Your task to perform on an android device: read, delete, or share a saved page in the chrome app Image 0: 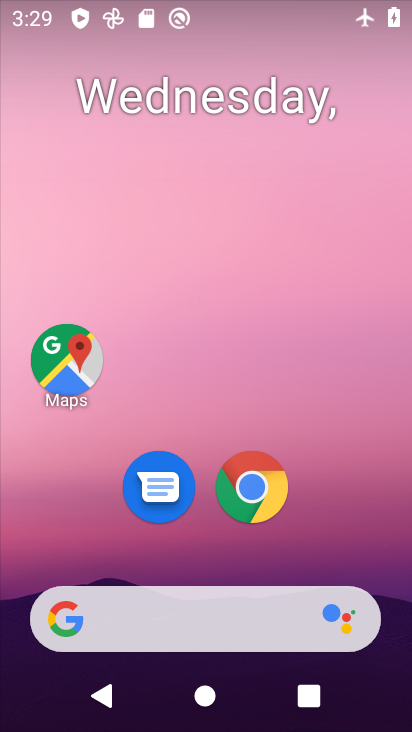
Step 0: drag from (372, 531) to (376, 186)
Your task to perform on an android device: read, delete, or share a saved page in the chrome app Image 1: 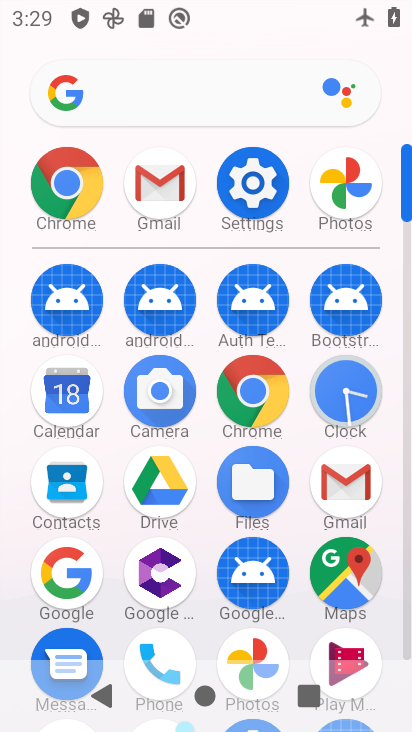
Step 1: click (263, 408)
Your task to perform on an android device: read, delete, or share a saved page in the chrome app Image 2: 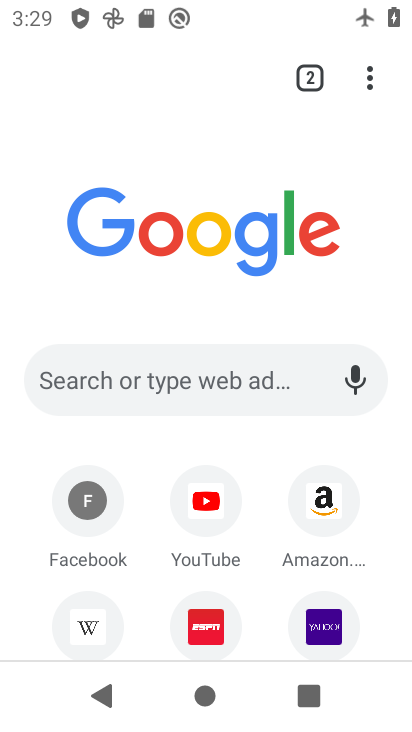
Step 2: click (367, 81)
Your task to perform on an android device: read, delete, or share a saved page in the chrome app Image 3: 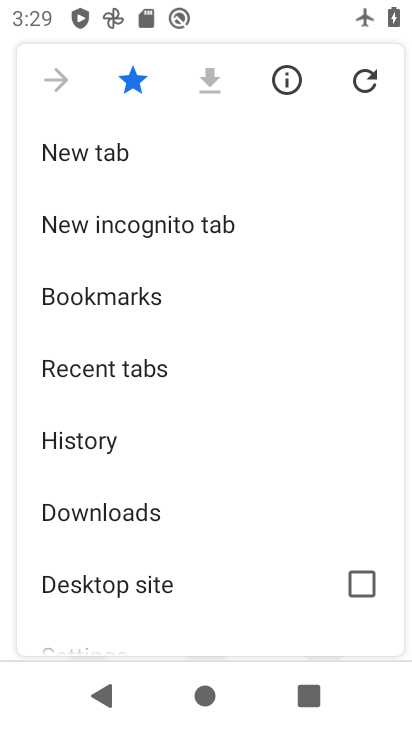
Step 3: drag from (291, 533) to (316, 426)
Your task to perform on an android device: read, delete, or share a saved page in the chrome app Image 4: 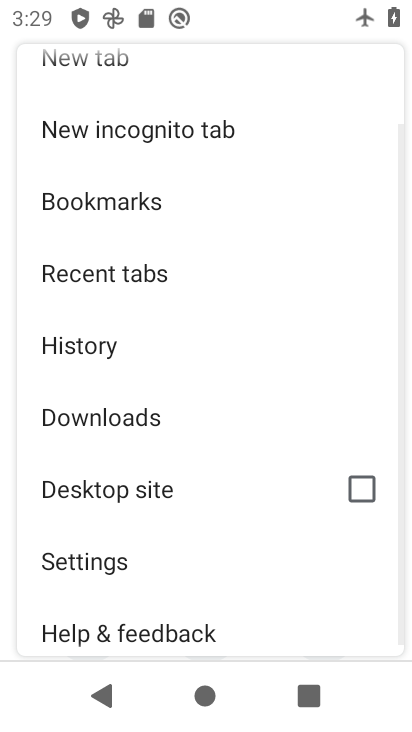
Step 4: drag from (288, 594) to (286, 416)
Your task to perform on an android device: read, delete, or share a saved page in the chrome app Image 5: 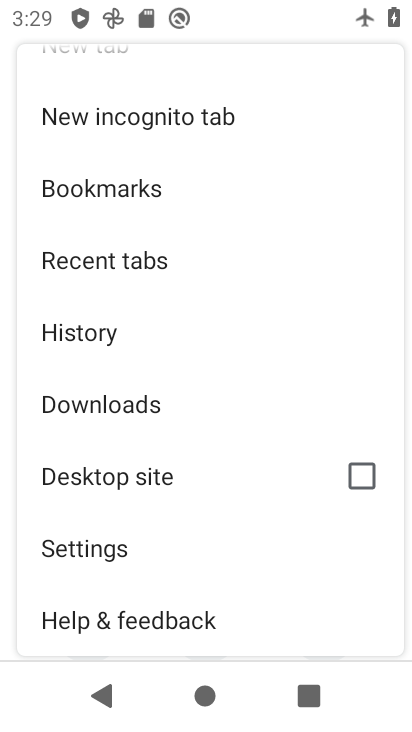
Step 5: drag from (274, 574) to (266, 428)
Your task to perform on an android device: read, delete, or share a saved page in the chrome app Image 6: 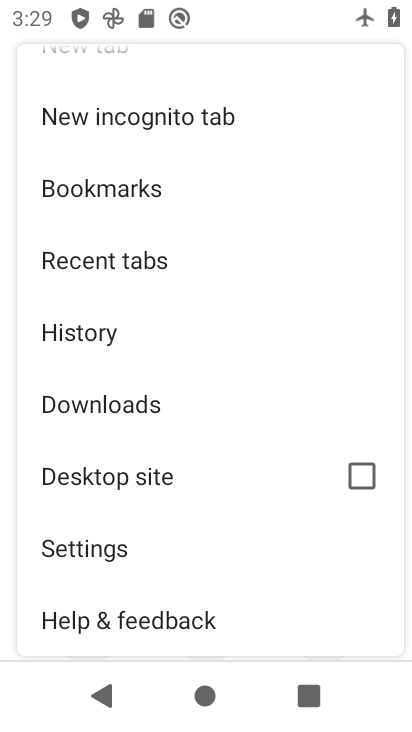
Step 6: drag from (262, 587) to (259, 437)
Your task to perform on an android device: read, delete, or share a saved page in the chrome app Image 7: 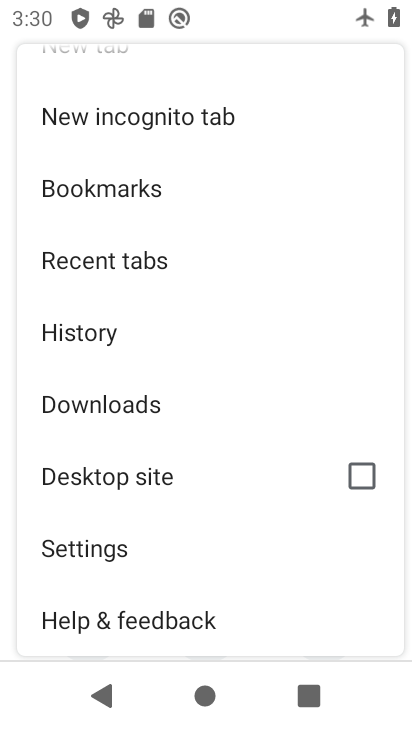
Step 7: drag from (270, 571) to (268, 391)
Your task to perform on an android device: read, delete, or share a saved page in the chrome app Image 8: 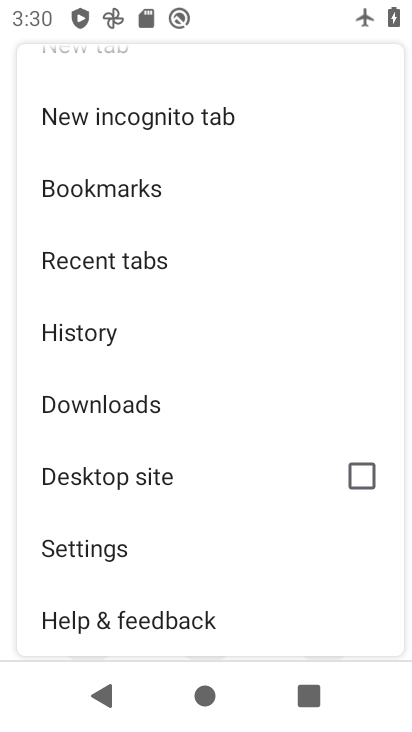
Step 8: drag from (280, 322) to (254, 488)
Your task to perform on an android device: read, delete, or share a saved page in the chrome app Image 9: 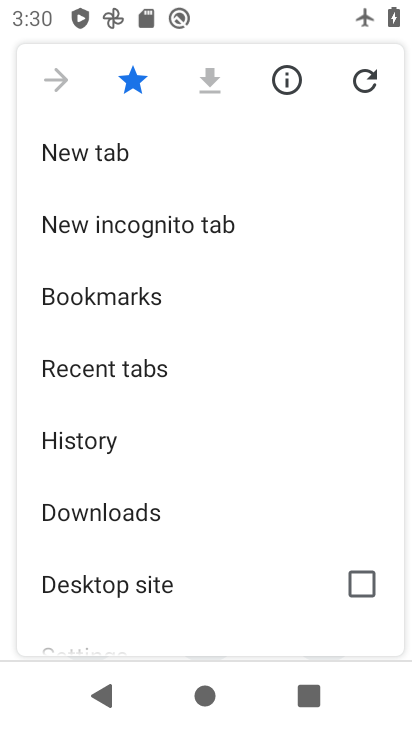
Step 9: drag from (266, 371) to (244, 481)
Your task to perform on an android device: read, delete, or share a saved page in the chrome app Image 10: 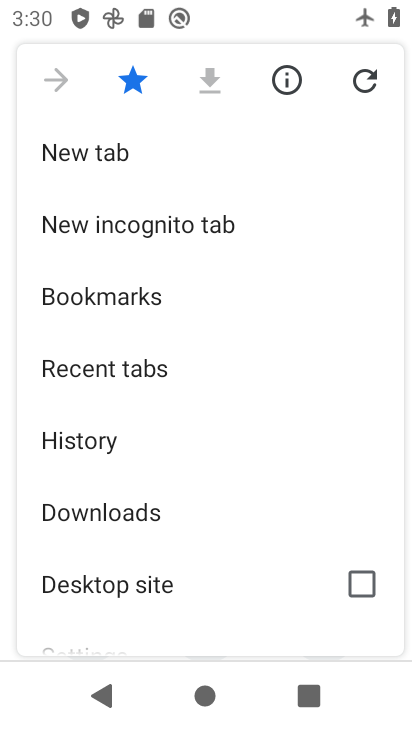
Step 10: click (149, 516)
Your task to perform on an android device: read, delete, or share a saved page in the chrome app Image 11: 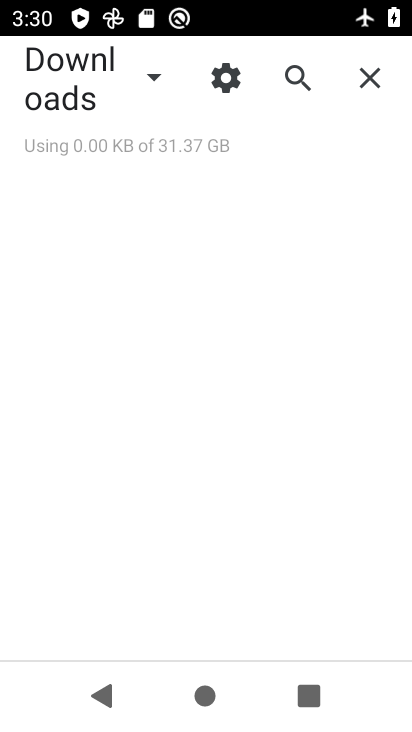
Step 11: click (142, 84)
Your task to perform on an android device: read, delete, or share a saved page in the chrome app Image 12: 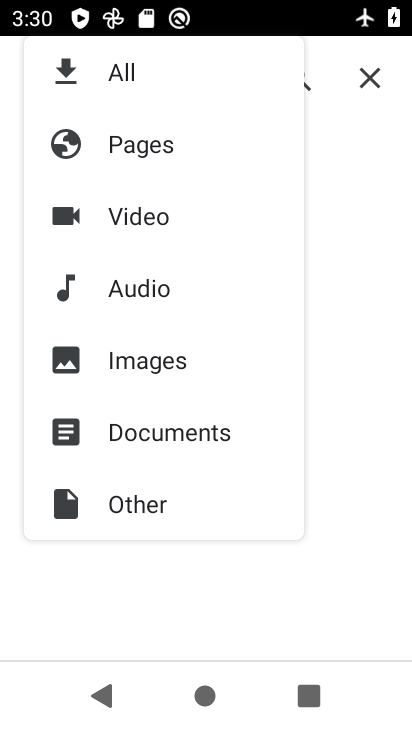
Step 12: click (141, 146)
Your task to perform on an android device: read, delete, or share a saved page in the chrome app Image 13: 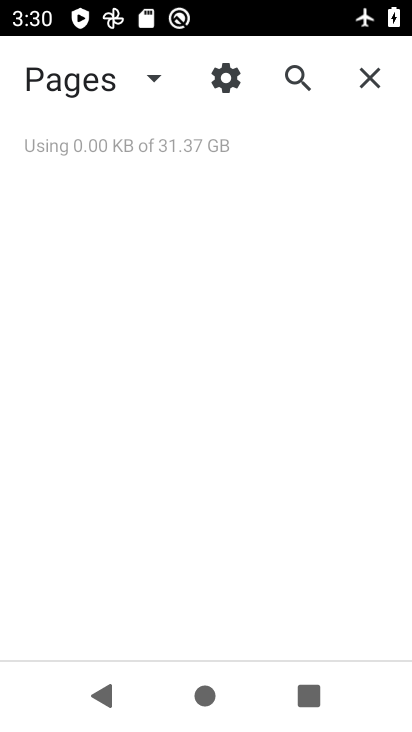
Step 13: task complete